Your task to perform on an android device: Open Chrome and go to the settings page Image 0: 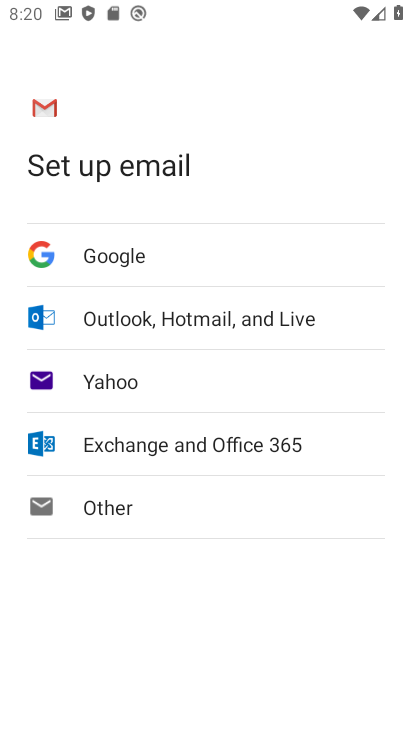
Step 0: press home button
Your task to perform on an android device: Open Chrome and go to the settings page Image 1: 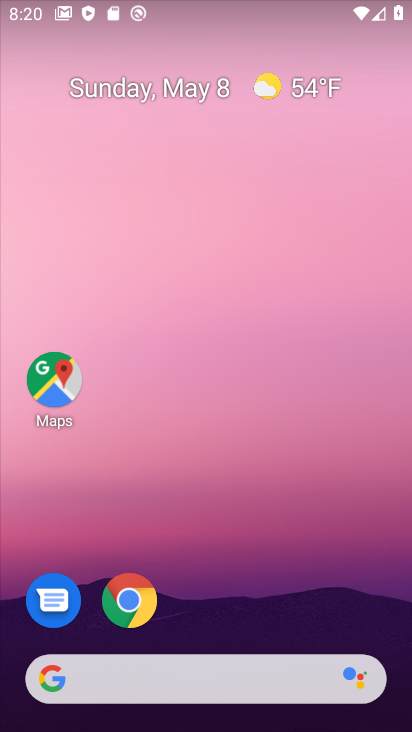
Step 1: click (126, 597)
Your task to perform on an android device: Open Chrome and go to the settings page Image 2: 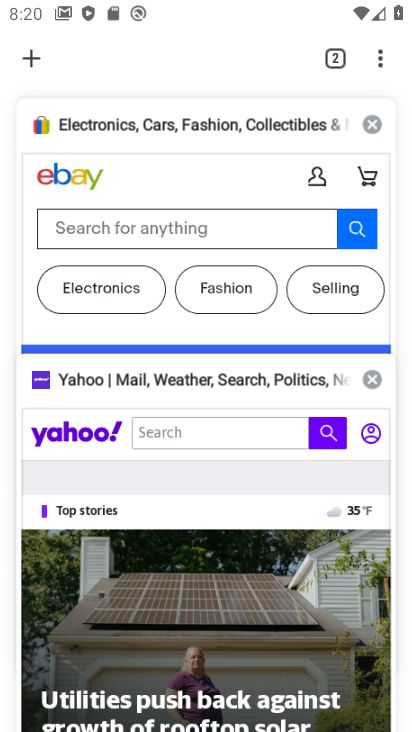
Step 2: click (391, 63)
Your task to perform on an android device: Open Chrome and go to the settings page Image 3: 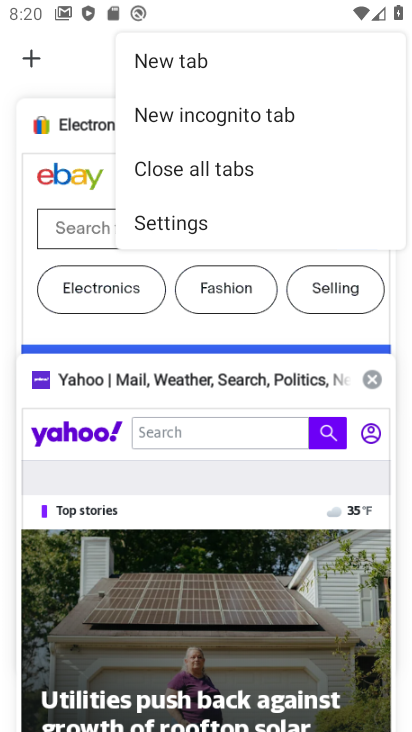
Step 3: click (258, 238)
Your task to perform on an android device: Open Chrome and go to the settings page Image 4: 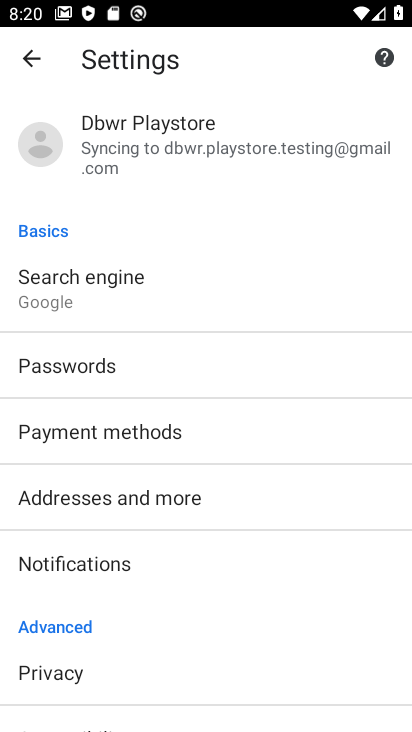
Step 4: task complete